Your task to perform on an android device: Open calendar and show me the second week of next month Image 0: 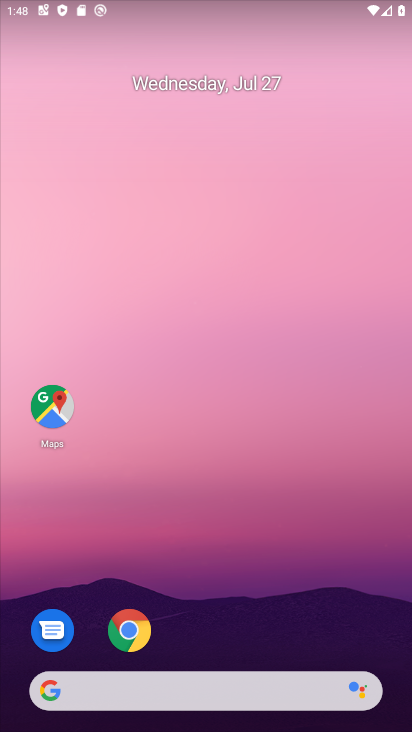
Step 0: drag from (366, 638) to (326, 188)
Your task to perform on an android device: Open calendar and show me the second week of next month Image 1: 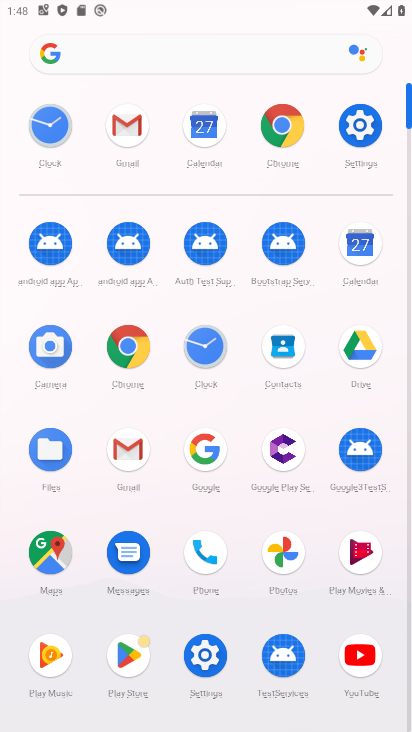
Step 1: click (362, 238)
Your task to perform on an android device: Open calendar and show me the second week of next month Image 2: 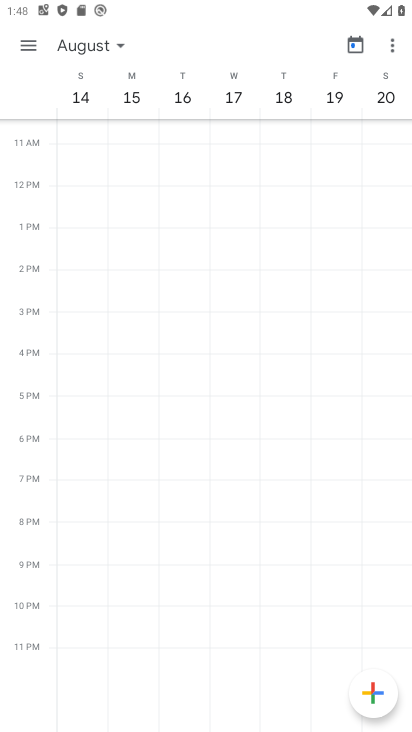
Step 2: task complete